Your task to perform on an android device: open app "Life360: Find Family & Friends" (install if not already installed) and go to login screen Image 0: 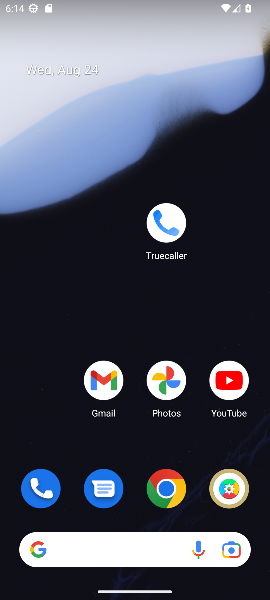
Step 0: drag from (129, 150) to (131, 0)
Your task to perform on an android device: open app "Life360: Find Family & Friends" (install if not already installed) and go to login screen Image 1: 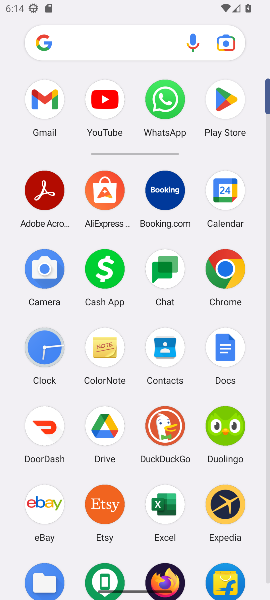
Step 1: click (224, 123)
Your task to perform on an android device: open app "Life360: Find Family & Friends" (install if not already installed) and go to login screen Image 2: 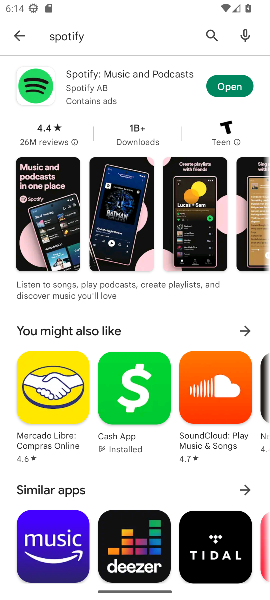
Step 2: click (203, 43)
Your task to perform on an android device: open app "Life360: Find Family & Friends" (install if not already installed) and go to login screen Image 3: 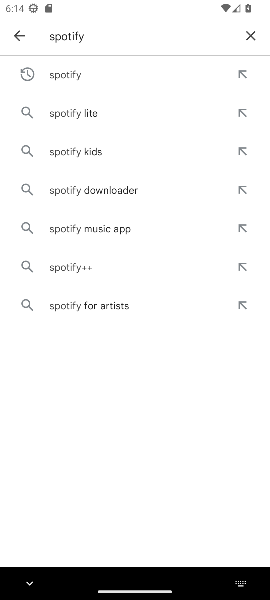
Step 3: click (251, 40)
Your task to perform on an android device: open app "Life360: Find Family & Friends" (install if not already installed) and go to login screen Image 4: 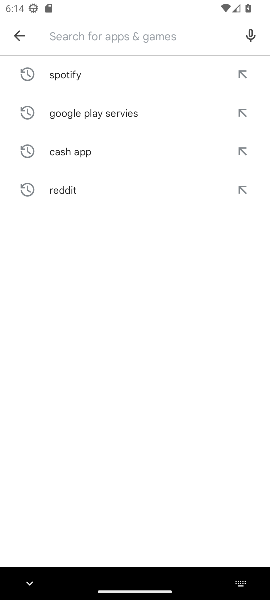
Step 4: type "life360"
Your task to perform on an android device: open app "Life360: Find Family & Friends" (install if not already installed) and go to login screen Image 5: 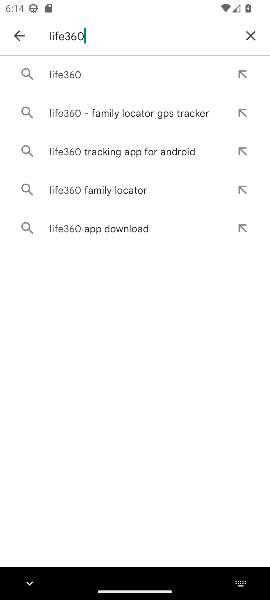
Step 5: click (102, 83)
Your task to perform on an android device: open app "Life360: Find Family & Friends" (install if not already installed) and go to login screen Image 6: 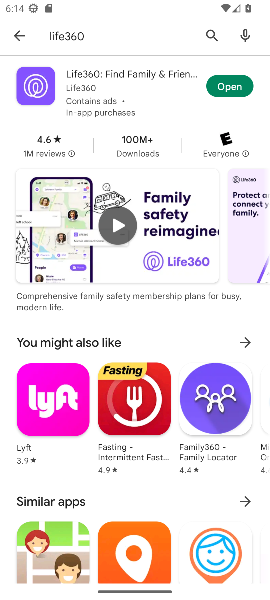
Step 6: click (217, 87)
Your task to perform on an android device: open app "Life360: Find Family & Friends" (install if not already installed) and go to login screen Image 7: 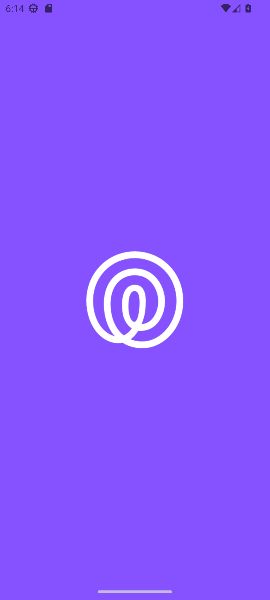
Step 7: task complete